Your task to perform on an android device: Open eBay Image 0: 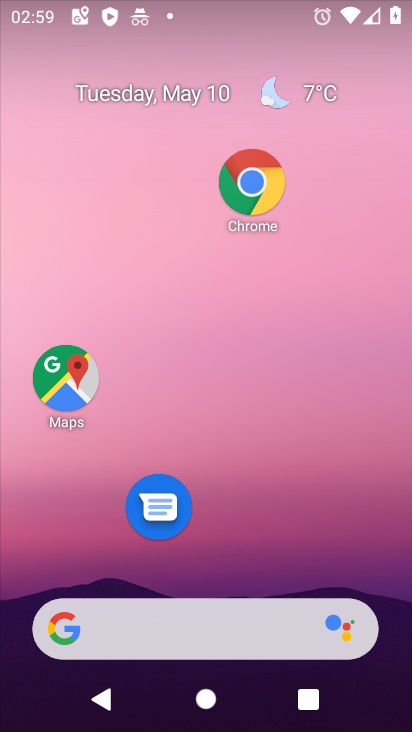
Step 0: drag from (212, 215) to (302, 3)
Your task to perform on an android device: Open eBay Image 1: 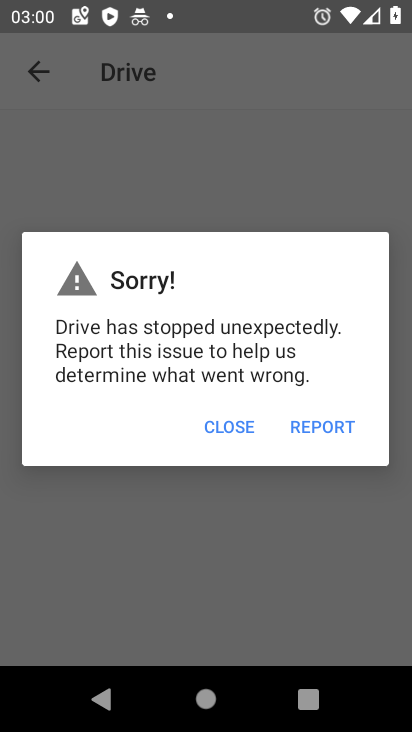
Step 1: press home button
Your task to perform on an android device: Open eBay Image 2: 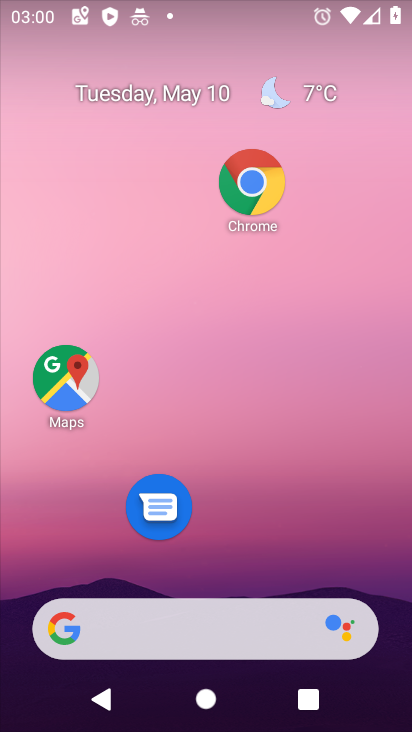
Step 2: click (264, 198)
Your task to perform on an android device: Open eBay Image 3: 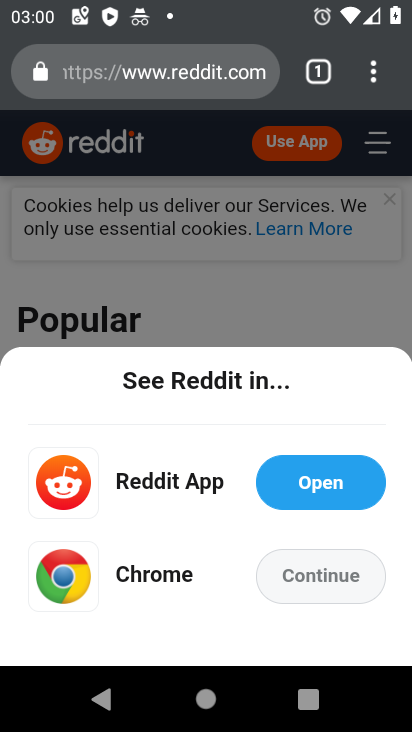
Step 3: click (307, 72)
Your task to perform on an android device: Open eBay Image 4: 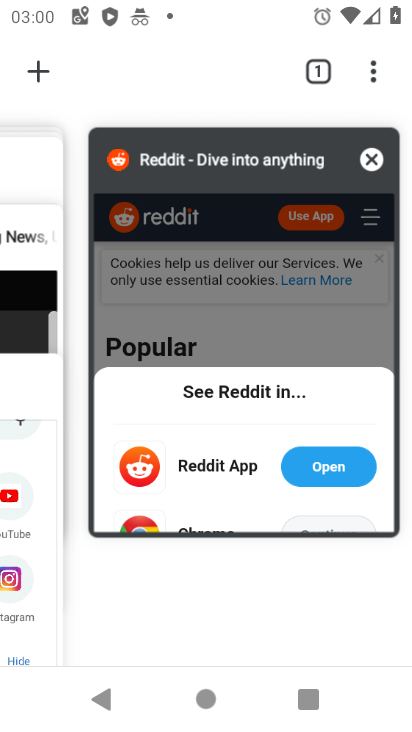
Step 4: click (35, 67)
Your task to perform on an android device: Open eBay Image 5: 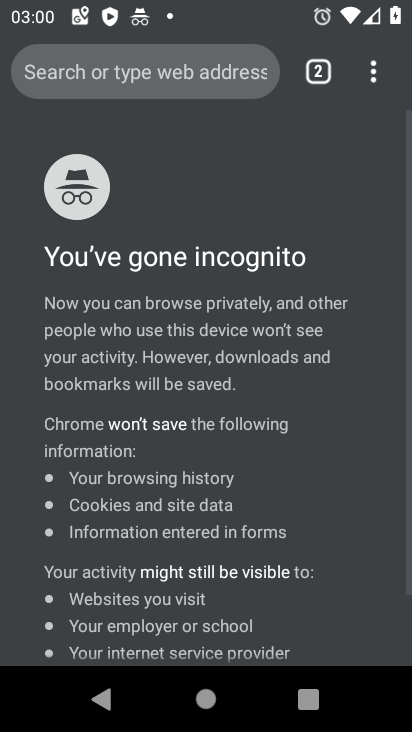
Step 5: click (68, 76)
Your task to perform on an android device: Open eBay Image 6: 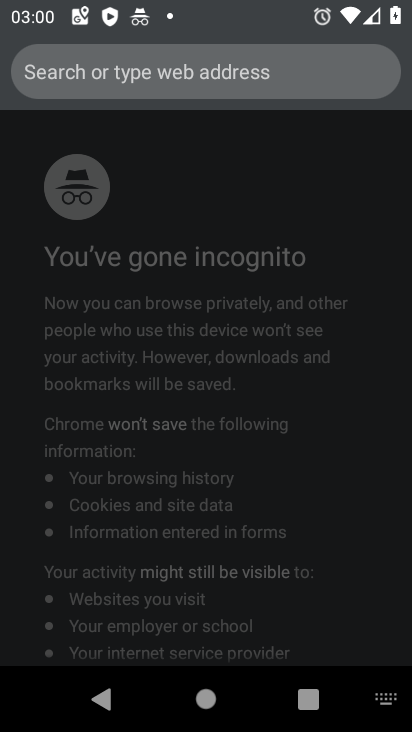
Step 6: type "ebay"
Your task to perform on an android device: Open eBay Image 7: 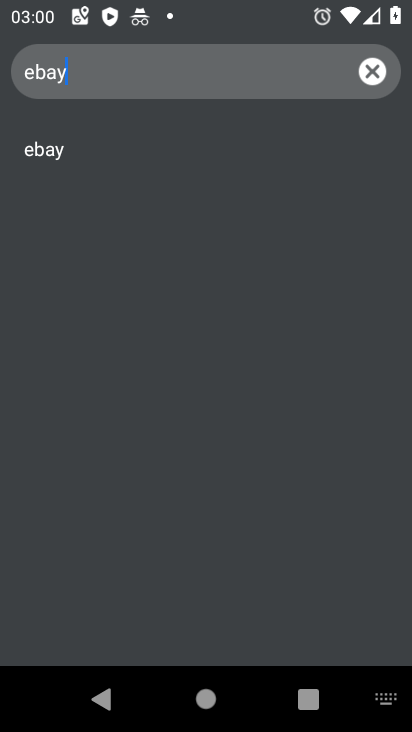
Step 7: click (121, 143)
Your task to perform on an android device: Open eBay Image 8: 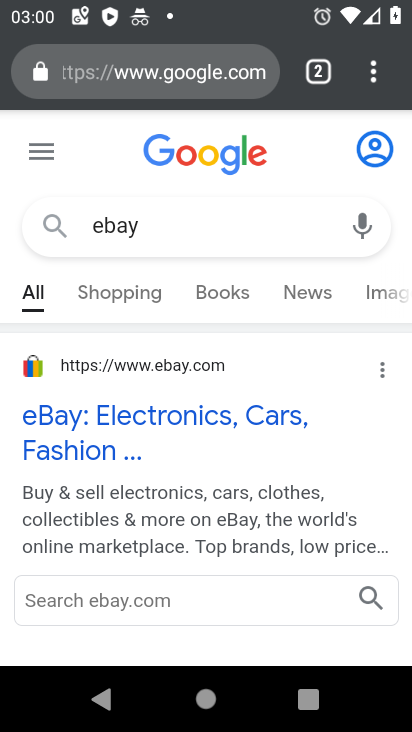
Step 8: click (149, 408)
Your task to perform on an android device: Open eBay Image 9: 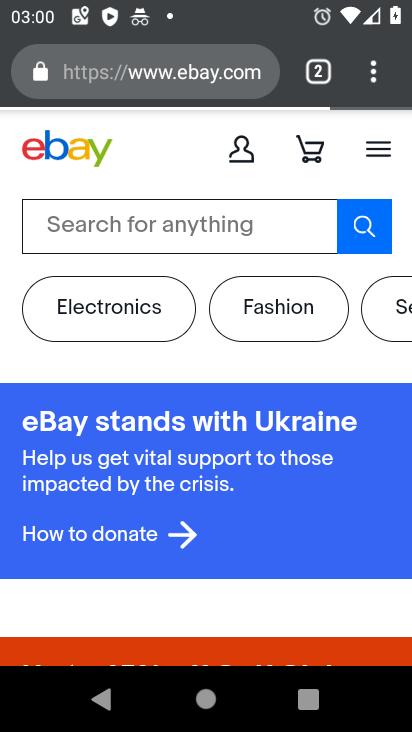
Step 9: task complete